Your task to perform on an android device: change the clock display to digital Image 0: 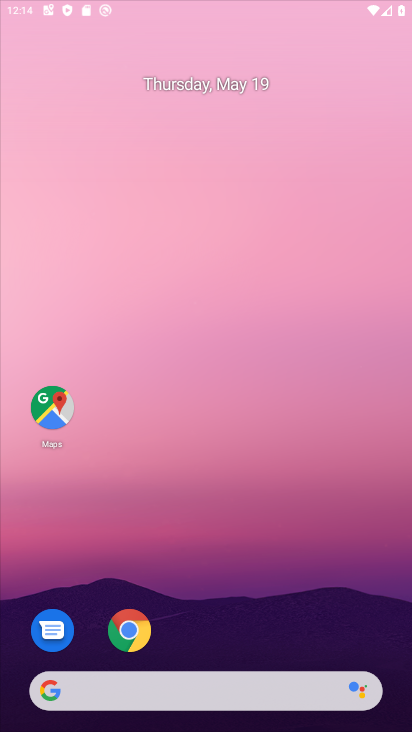
Step 0: drag from (199, 630) to (284, 54)
Your task to perform on an android device: change the clock display to digital Image 1: 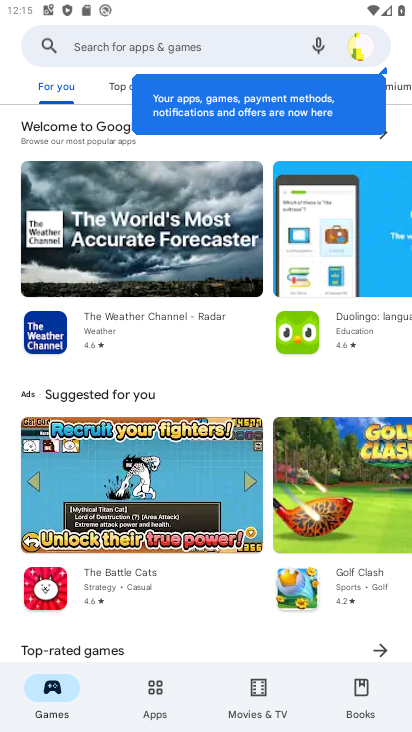
Step 1: drag from (234, 557) to (229, 260)
Your task to perform on an android device: change the clock display to digital Image 2: 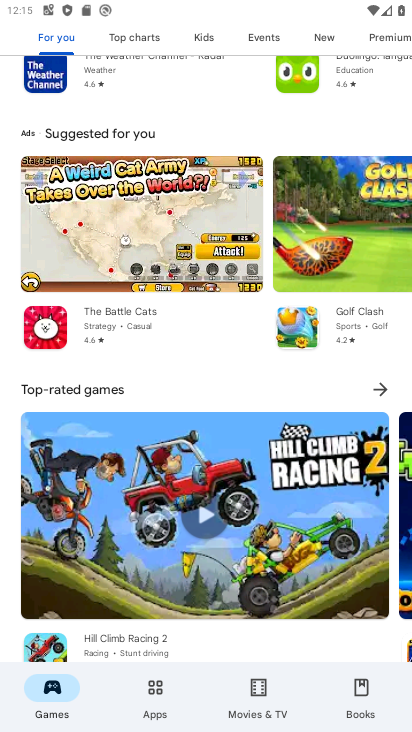
Step 2: press home button
Your task to perform on an android device: change the clock display to digital Image 3: 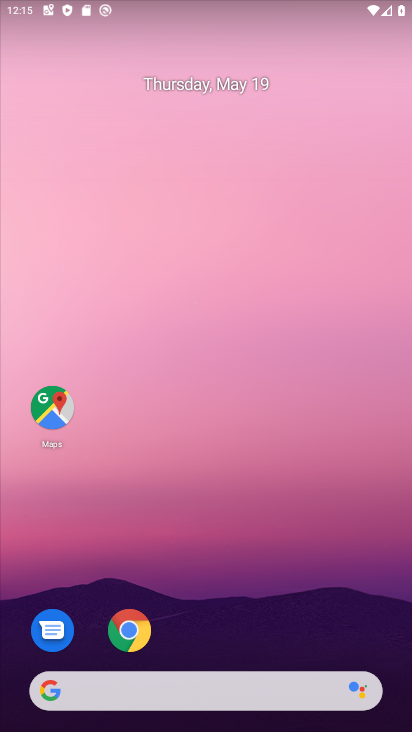
Step 3: drag from (206, 617) to (300, 5)
Your task to perform on an android device: change the clock display to digital Image 4: 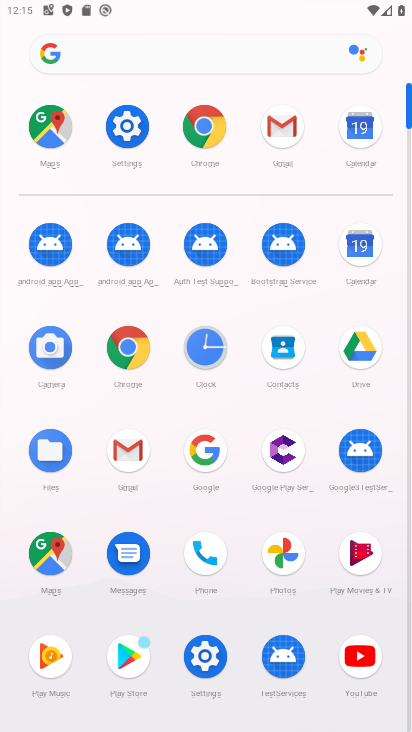
Step 4: click (208, 343)
Your task to perform on an android device: change the clock display to digital Image 5: 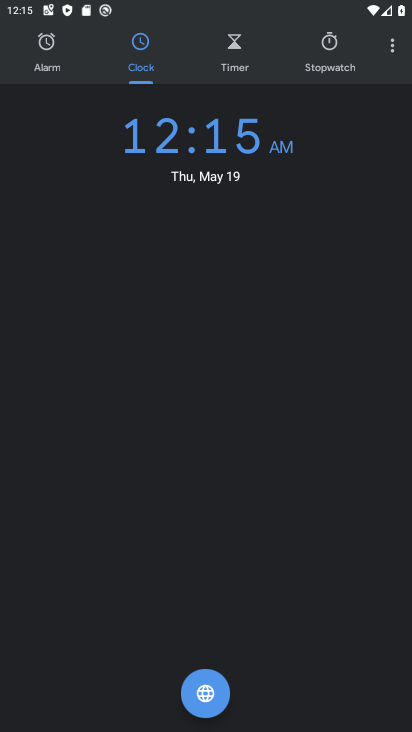
Step 5: click (386, 62)
Your task to perform on an android device: change the clock display to digital Image 6: 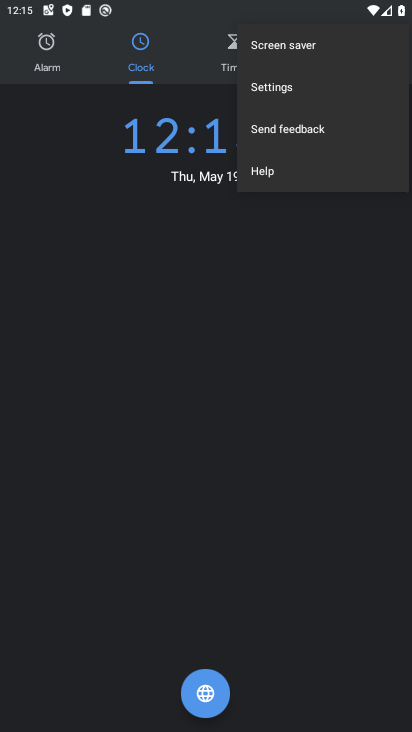
Step 6: click (282, 95)
Your task to perform on an android device: change the clock display to digital Image 7: 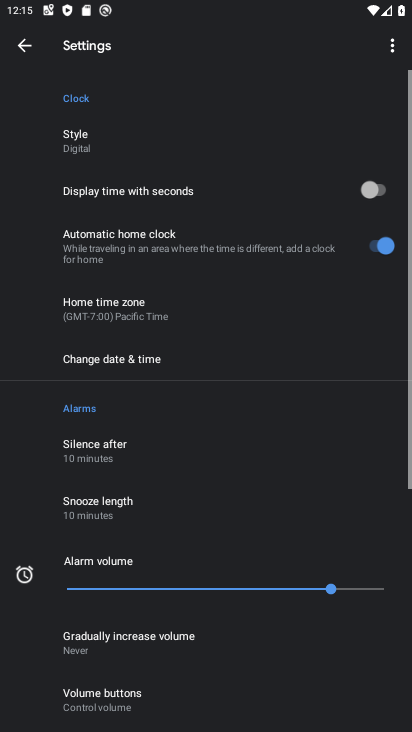
Step 7: click (98, 157)
Your task to perform on an android device: change the clock display to digital Image 8: 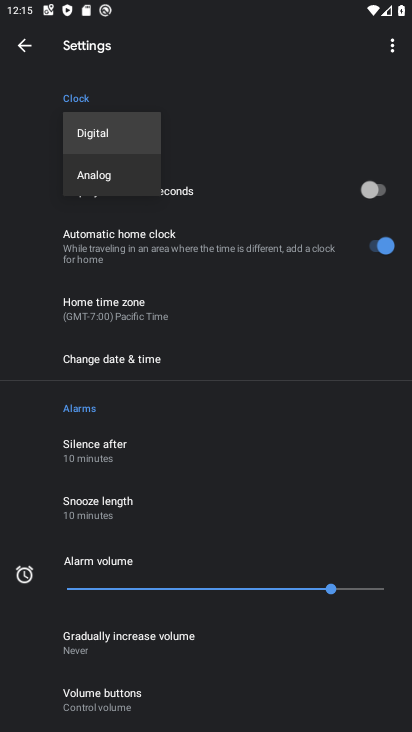
Step 8: task complete